Your task to perform on an android device: Clear the shopping cart on newegg.com. Image 0: 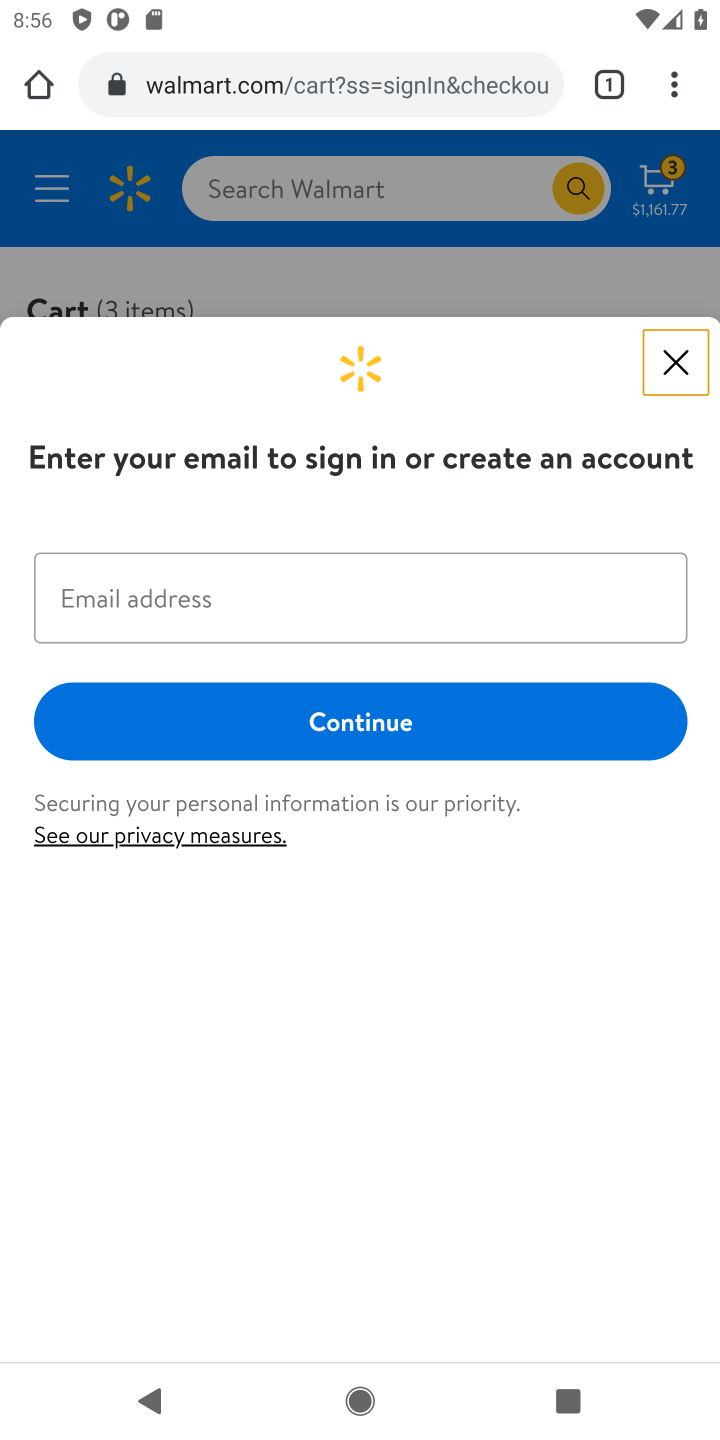
Step 0: click (276, 100)
Your task to perform on an android device: Clear the shopping cart on newegg.com. Image 1: 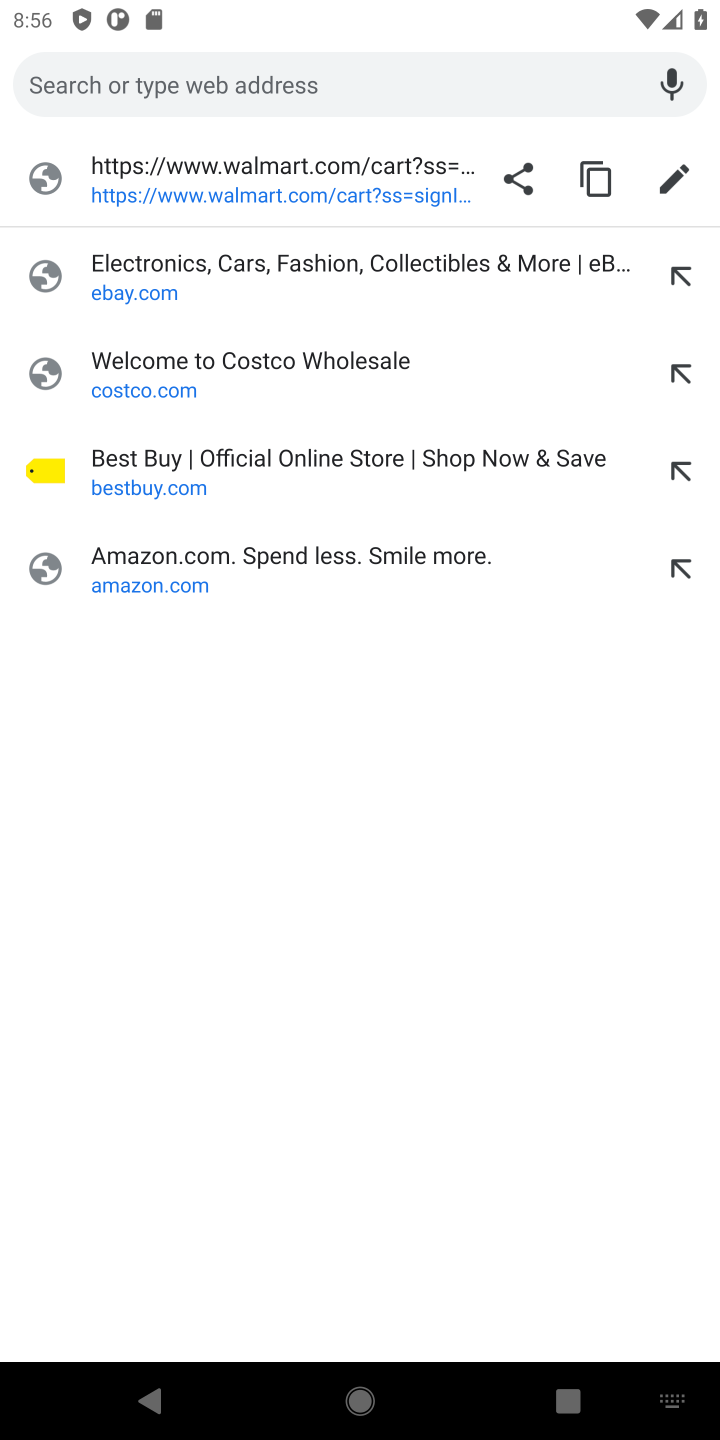
Step 1: type "newegg.com"
Your task to perform on an android device: Clear the shopping cart on newegg.com. Image 2: 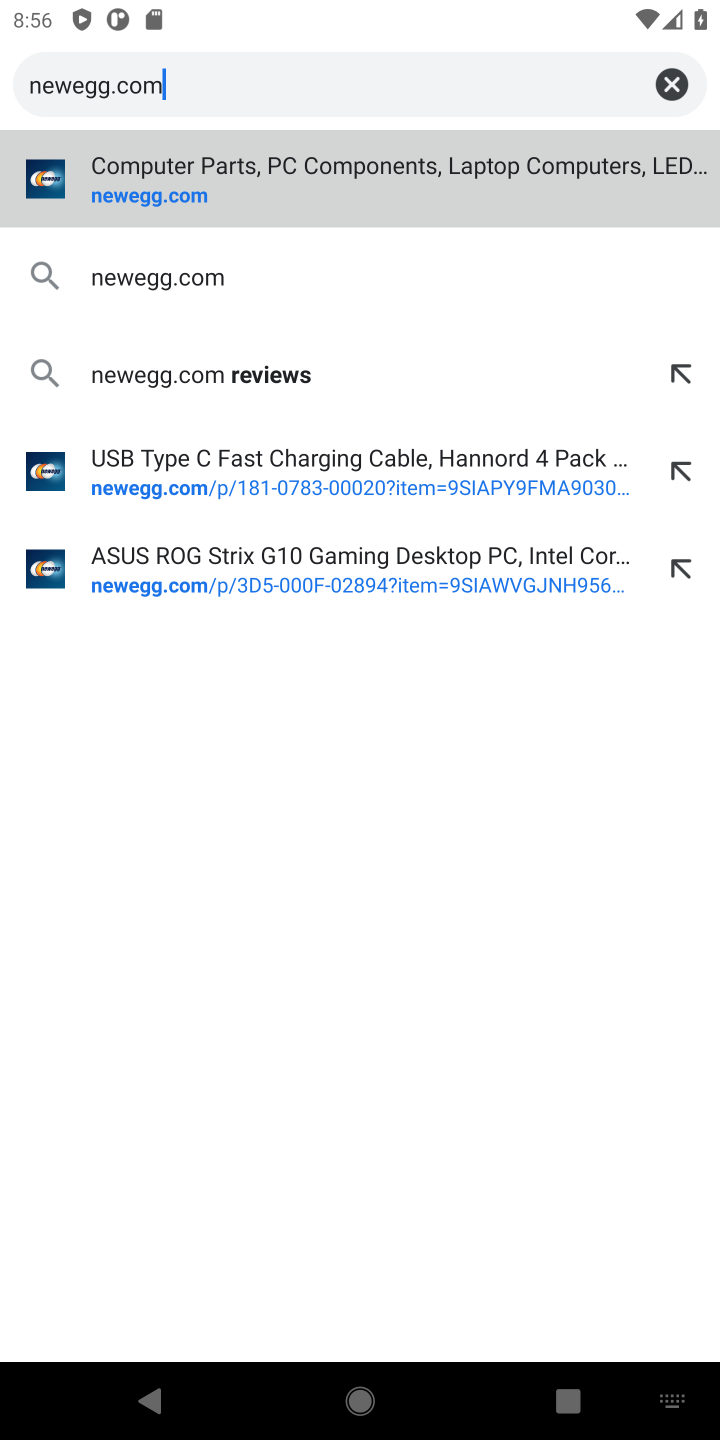
Step 2: click (65, 182)
Your task to perform on an android device: Clear the shopping cart on newegg.com. Image 3: 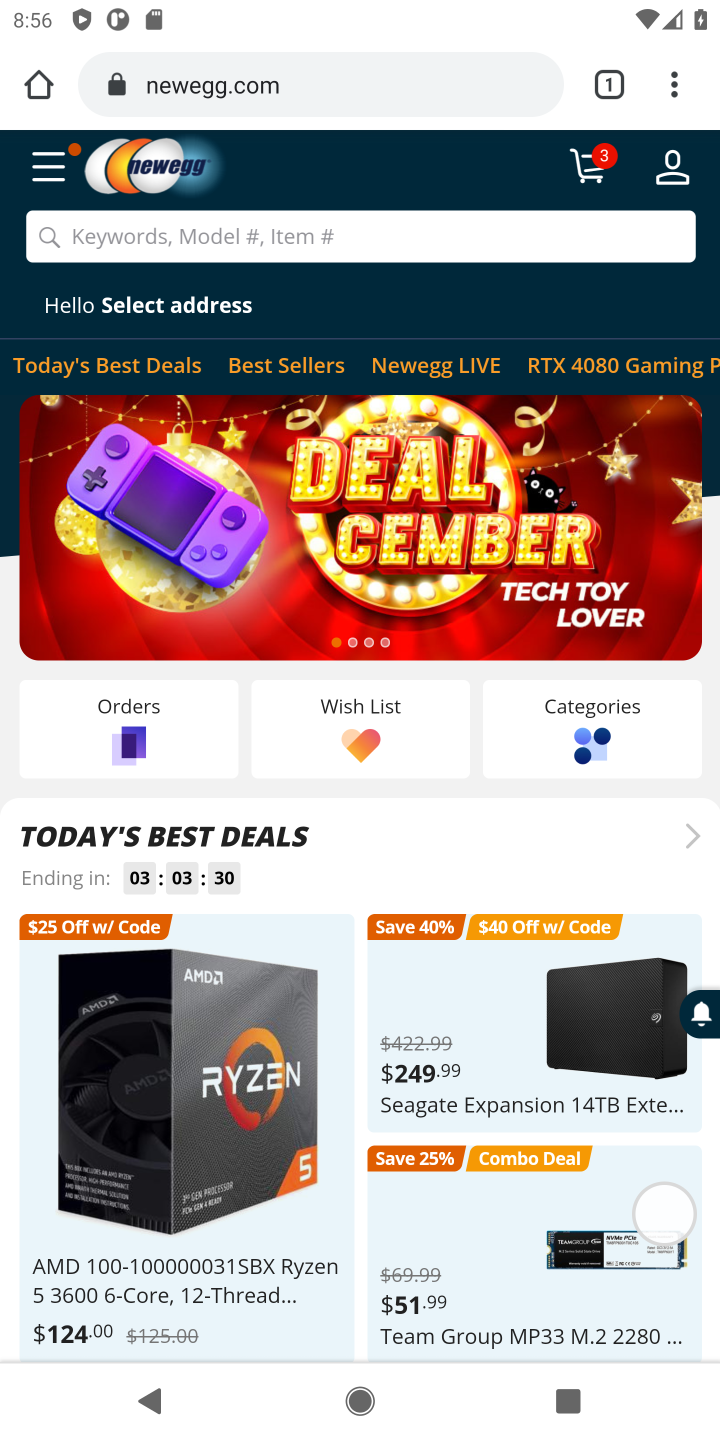
Step 3: click (598, 168)
Your task to perform on an android device: Clear the shopping cart on newegg.com. Image 4: 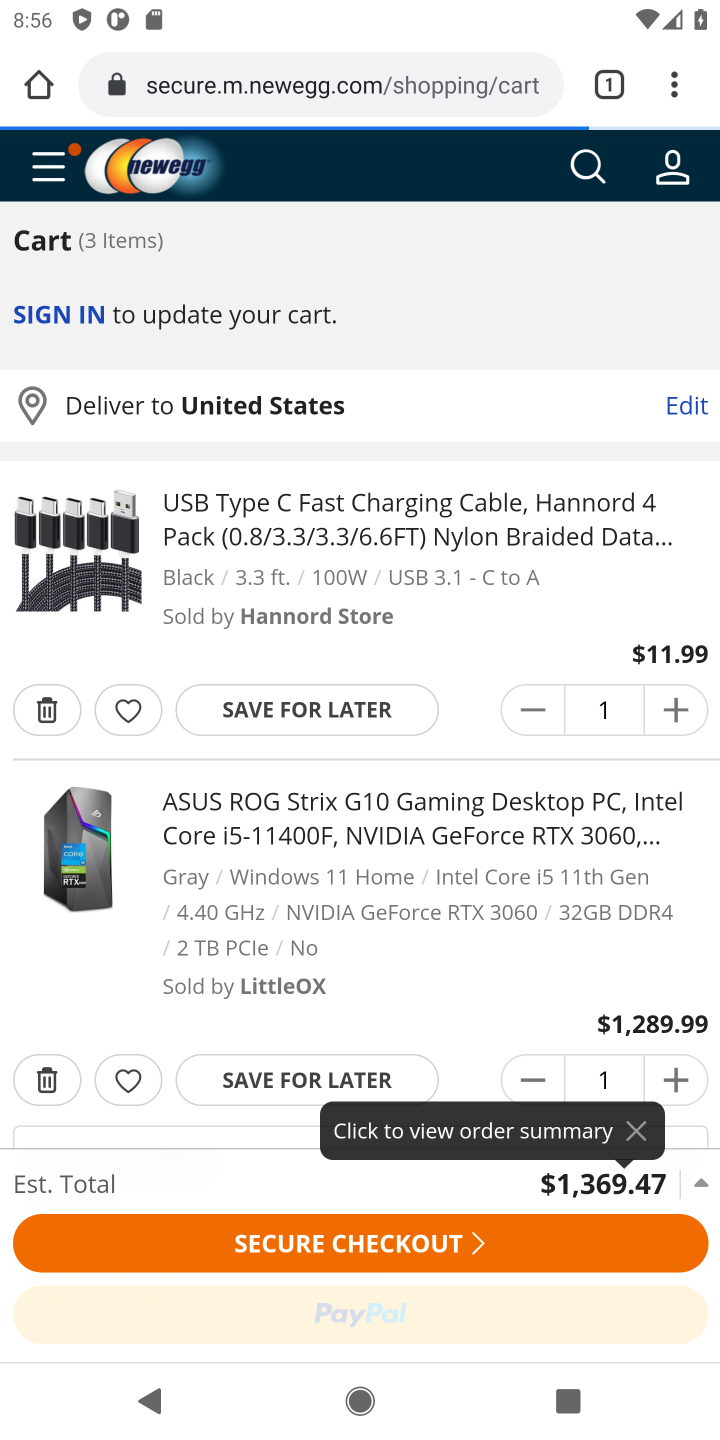
Step 4: click (45, 699)
Your task to perform on an android device: Clear the shopping cart on newegg.com. Image 5: 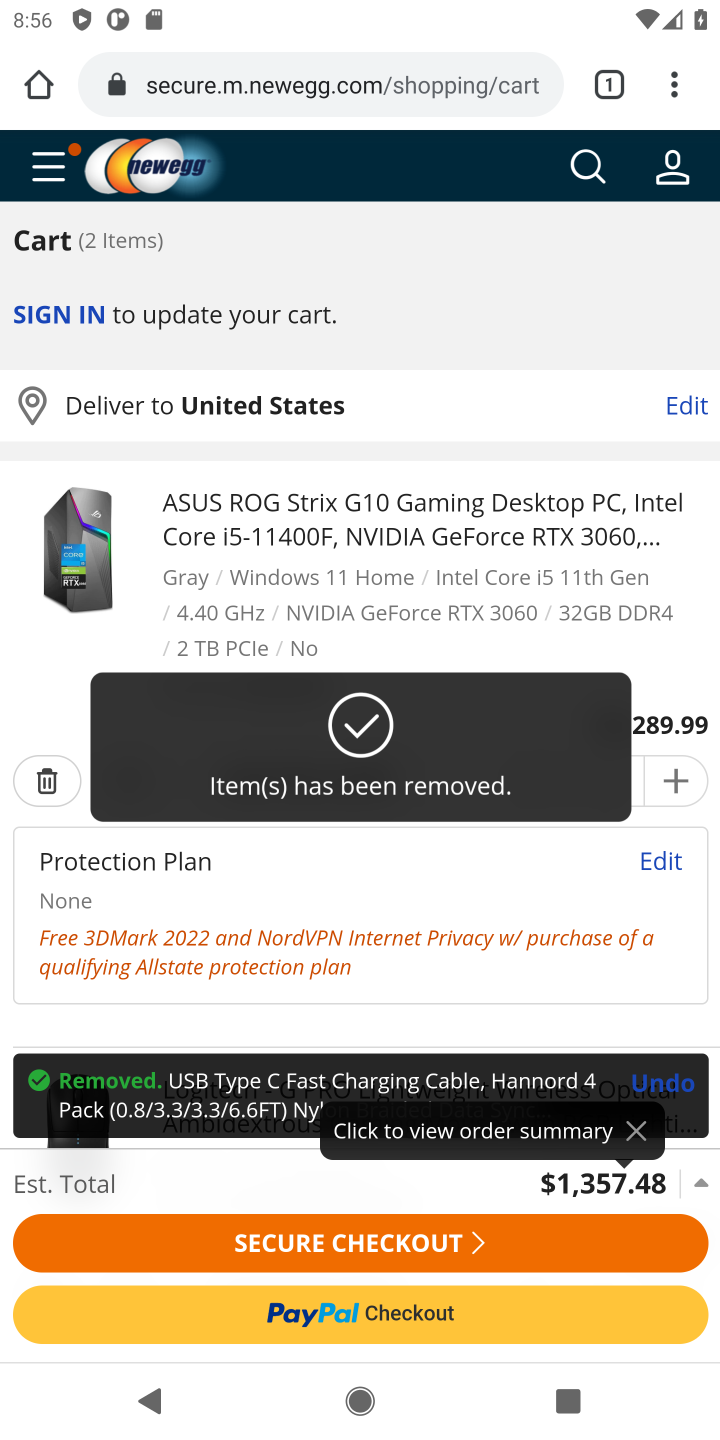
Step 5: click (47, 769)
Your task to perform on an android device: Clear the shopping cart on newegg.com. Image 6: 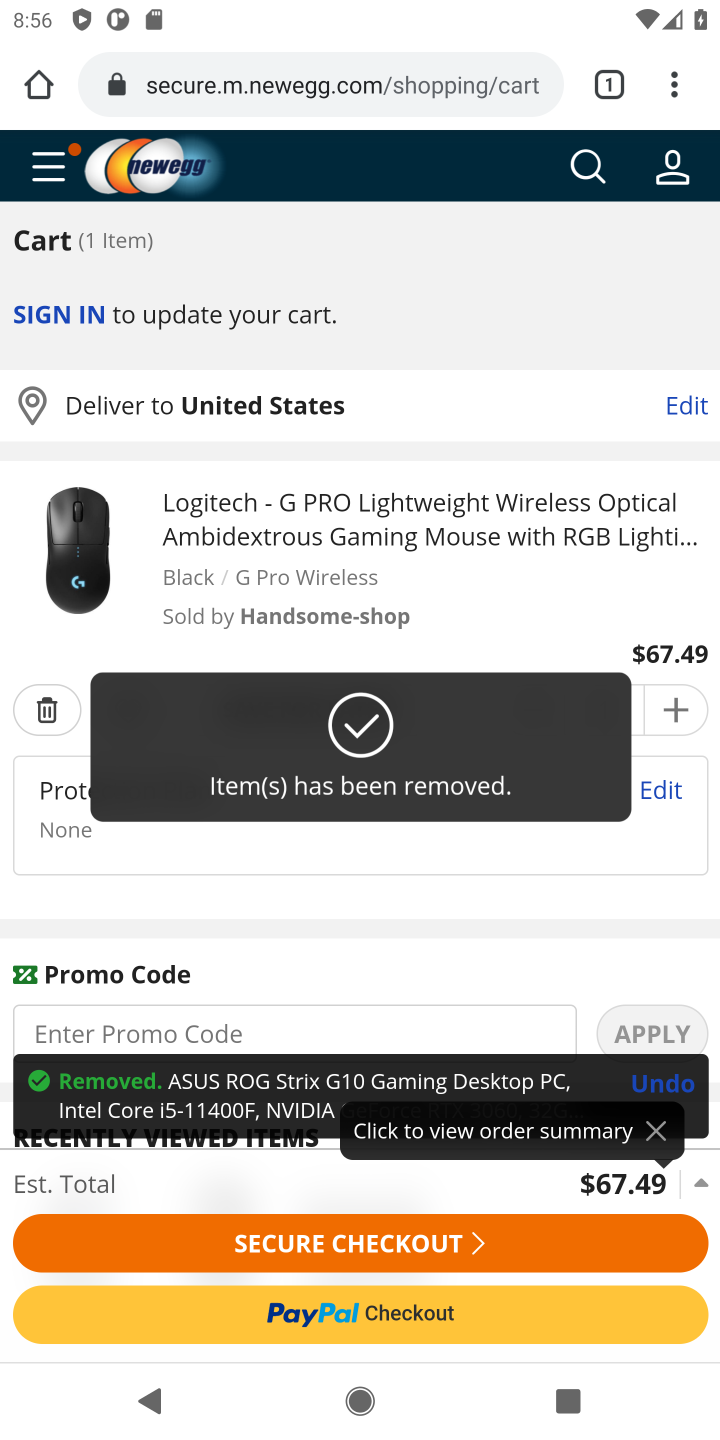
Step 6: click (49, 712)
Your task to perform on an android device: Clear the shopping cart on newegg.com. Image 7: 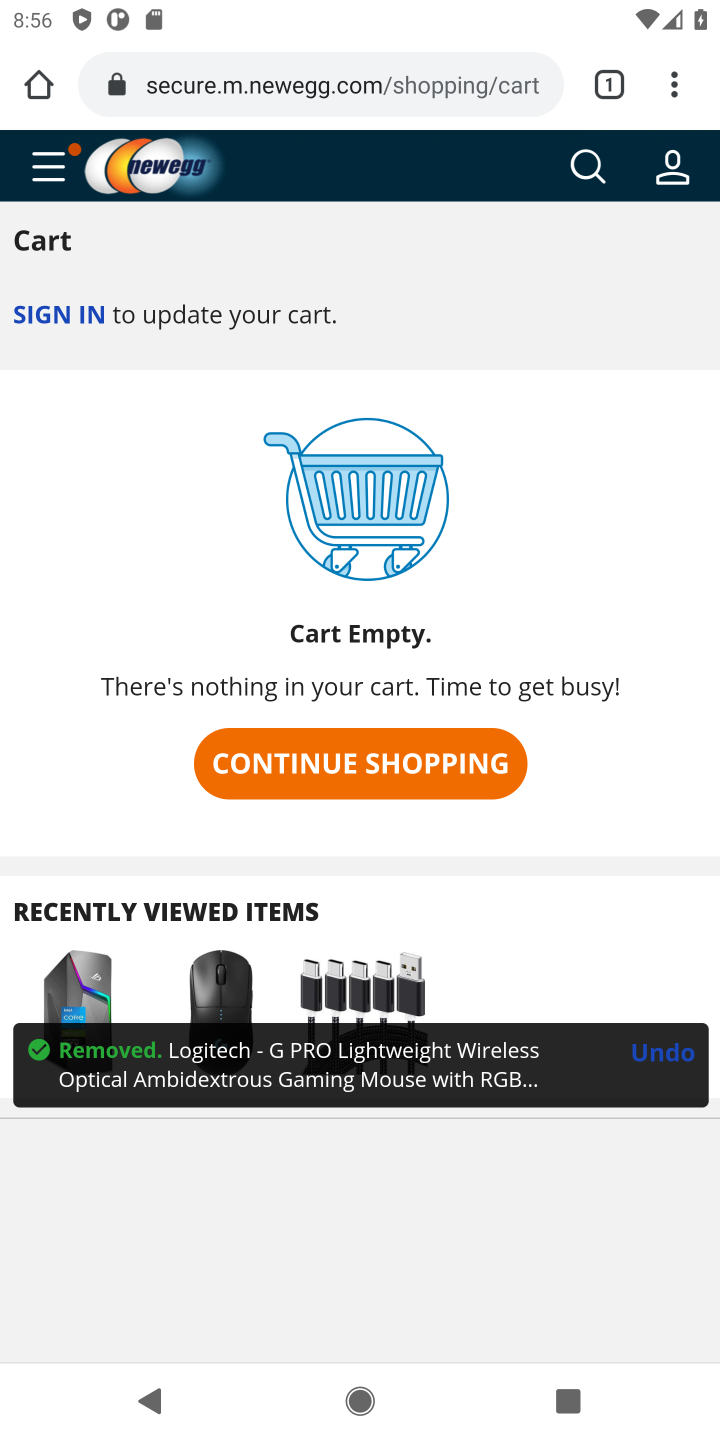
Step 7: task complete